Your task to perform on an android device: Open the calendar and show me this week's events? Image 0: 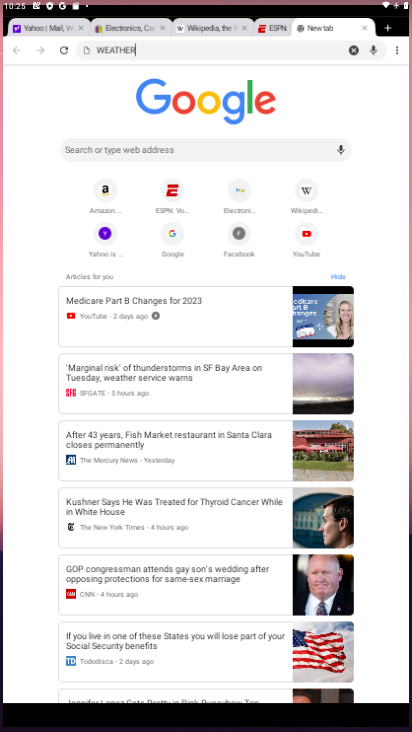
Step 0: click (146, 225)
Your task to perform on an android device: Open the calendar and show me this week's events? Image 1: 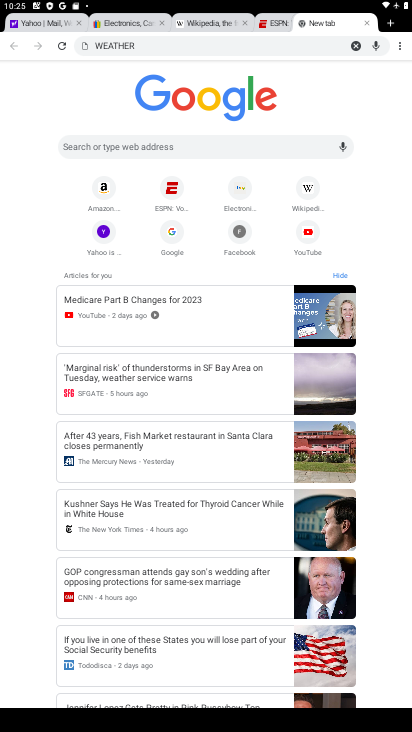
Step 1: click (389, 49)
Your task to perform on an android device: Open the calendar and show me this week's events? Image 2: 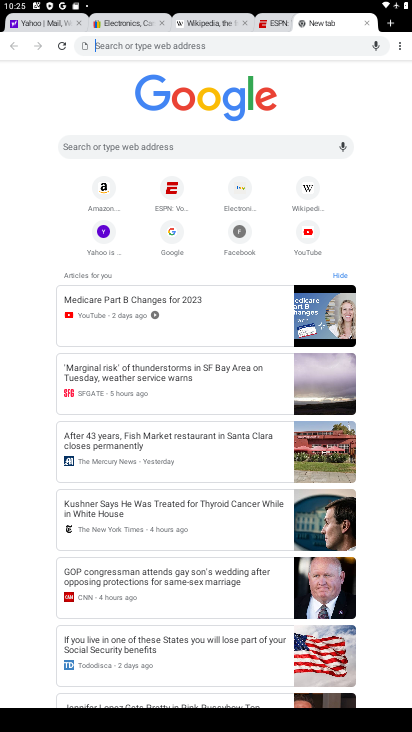
Step 2: click (397, 54)
Your task to perform on an android device: Open the calendar and show me this week's events? Image 3: 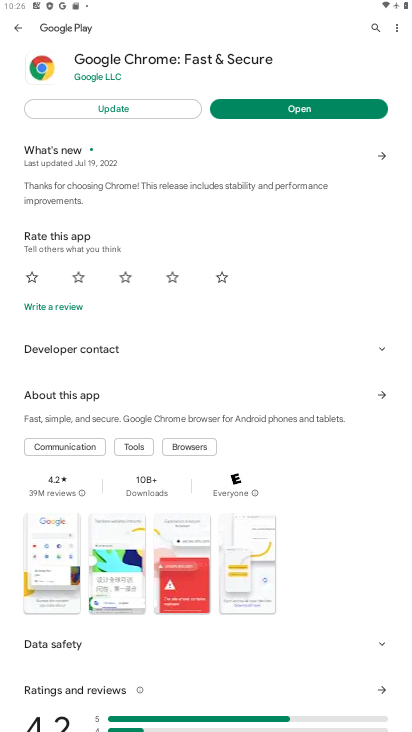
Step 3: click (171, 102)
Your task to perform on an android device: Open the calendar and show me this week's events? Image 4: 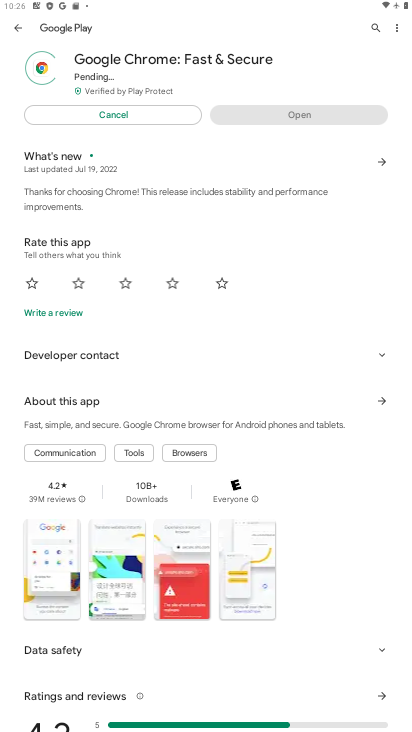
Step 4: task complete